Your task to perform on an android device: check the backup settings in the google photos Image 0: 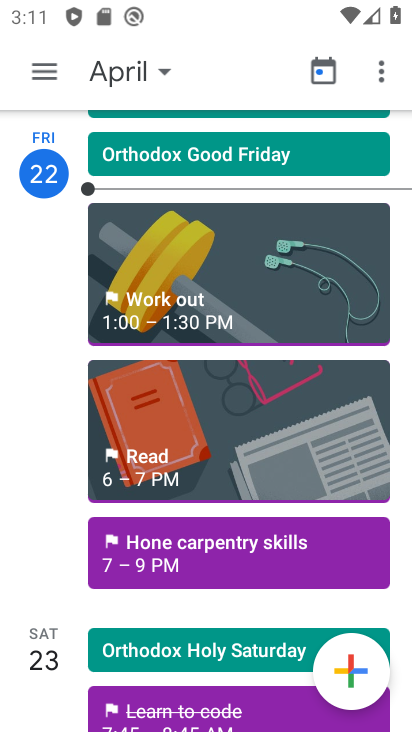
Step 0: press home button
Your task to perform on an android device: check the backup settings in the google photos Image 1: 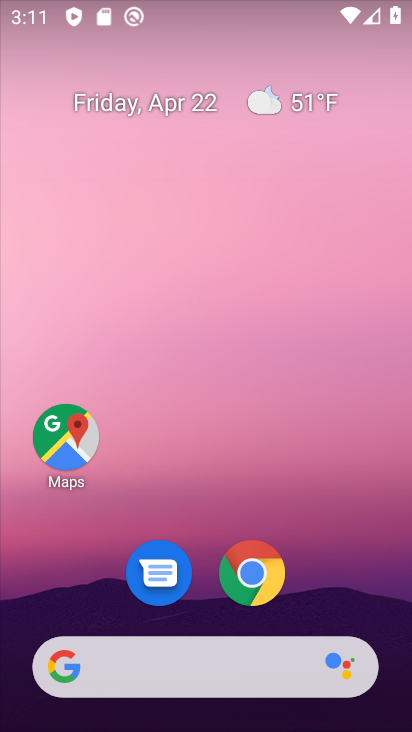
Step 1: drag from (292, 437) to (274, 90)
Your task to perform on an android device: check the backup settings in the google photos Image 2: 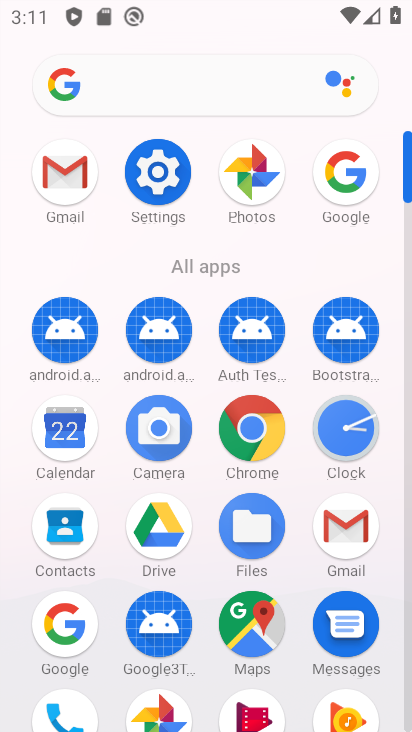
Step 2: click (261, 170)
Your task to perform on an android device: check the backup settings in the google photos Image 3: 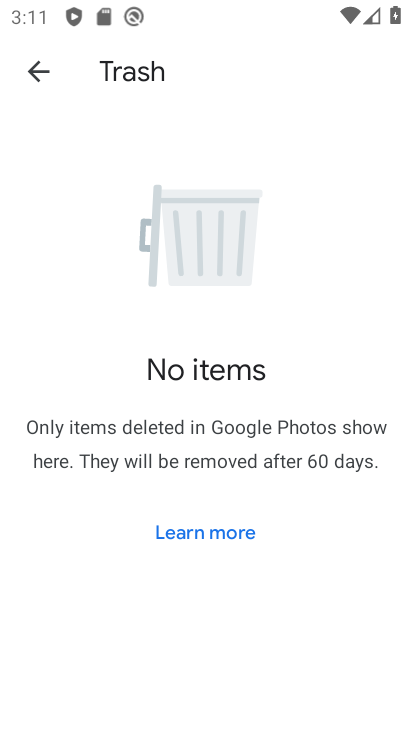
Step 3: click (21, 79)
Your task to perform on an android device: check the backup settings in the google photos Image 4: 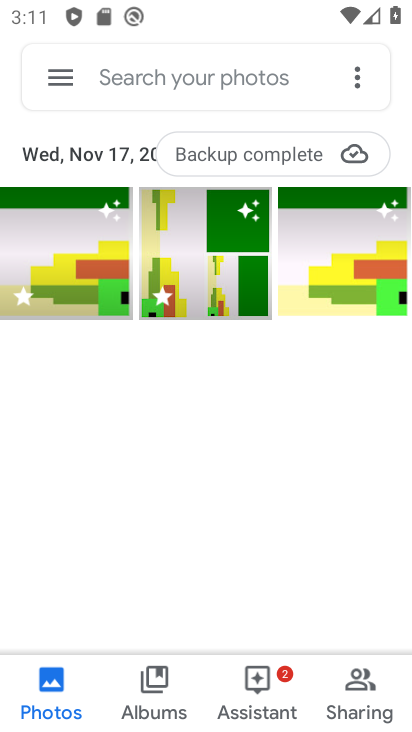
Step 4: click (63, 83)
Your task to perform on an android device: check the backup settings in the google photos Image 5: 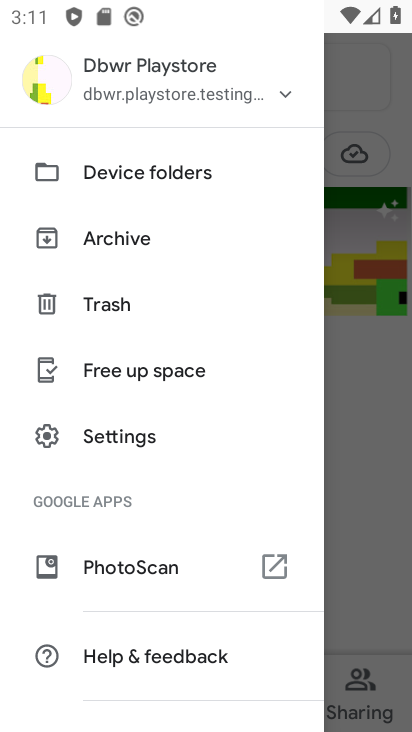
Step 5: click (129, 442)
Your task to perform on an android device: check the backup settings in the google photos Image 6: 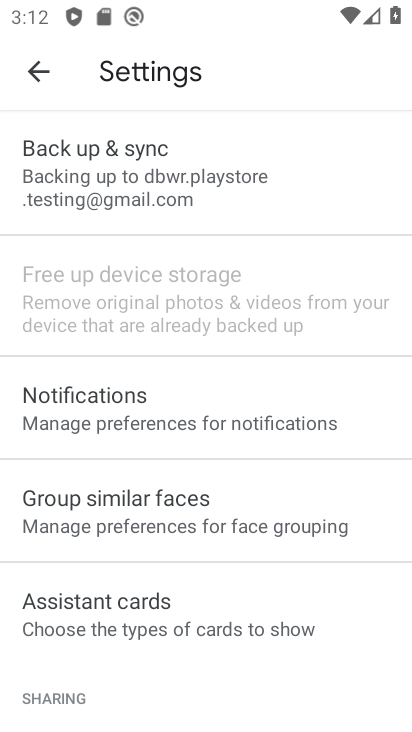
Step 6: click (171, 156)
Your task to perform on an android device: check the backup settings in the google photos Image 7: 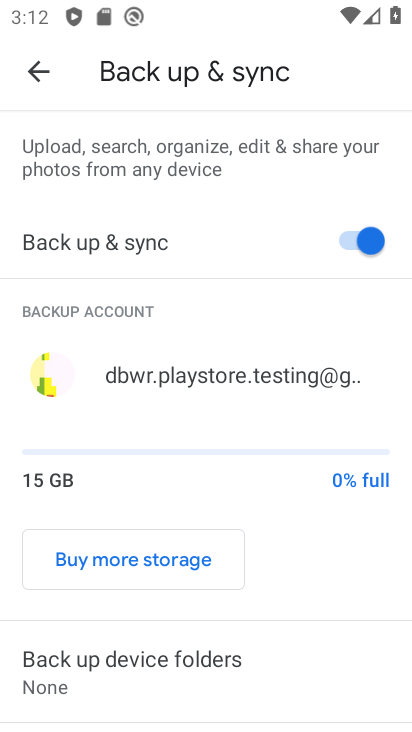
Step 7: task complete